Your task to perform on an android device: Show the shopping cart on costco. Add "usb-c to usb-b" to the cart on costco Image 0: 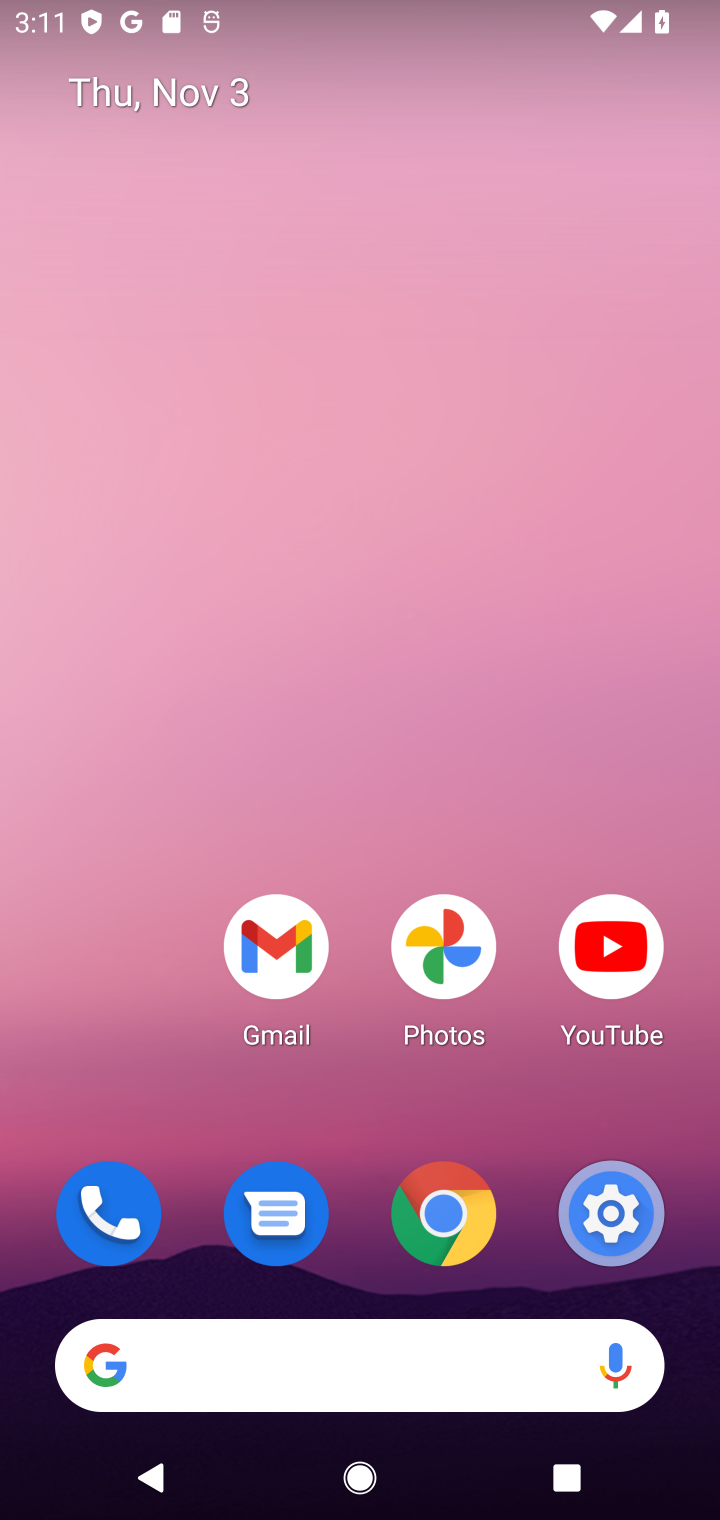
Step 0: click (445, 1245)
Your task to perform on an android device: Show the shopping cart on costco. Add "usb-c to usb-b" to the cart on costco Image 1: 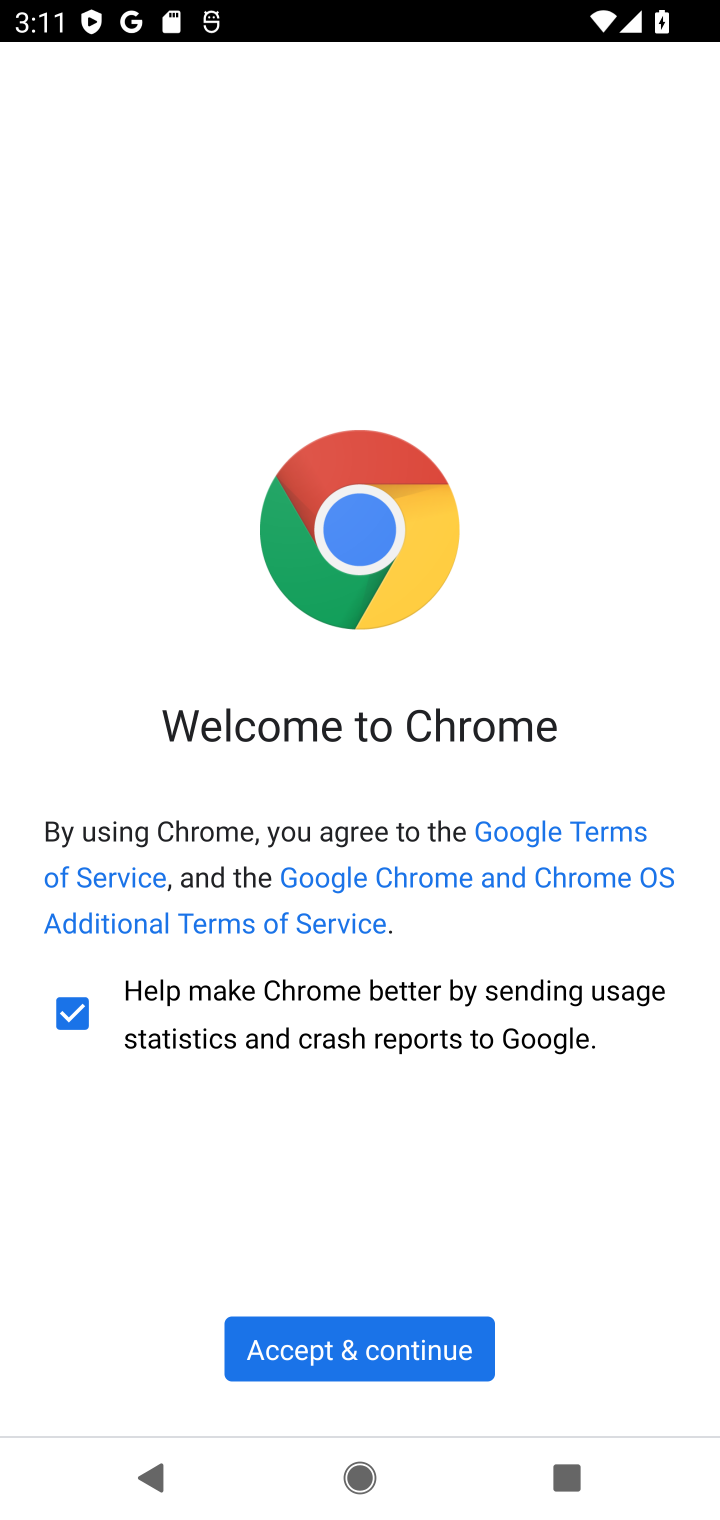
Step 1: click (296, 1343)
Your task to perform on an android device: Show the shopping cart on costco. Add "usb-c to usb-b" to the cart on costco Image 2: 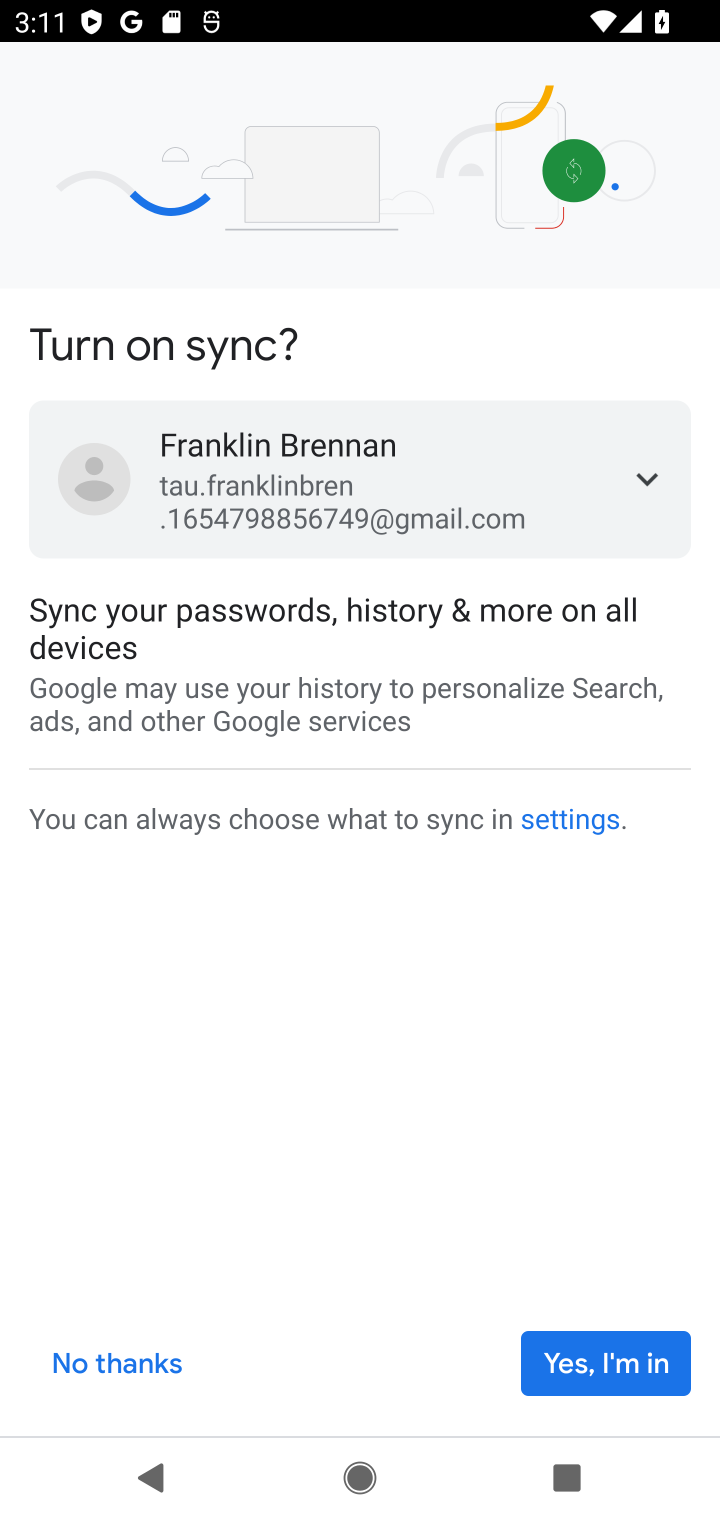
Step 2: click (67, 1362)
Your task to perform on an android device: Show the shopping cart on costco. Add "usb-c to usb-b" to the cart on costco Image 3: 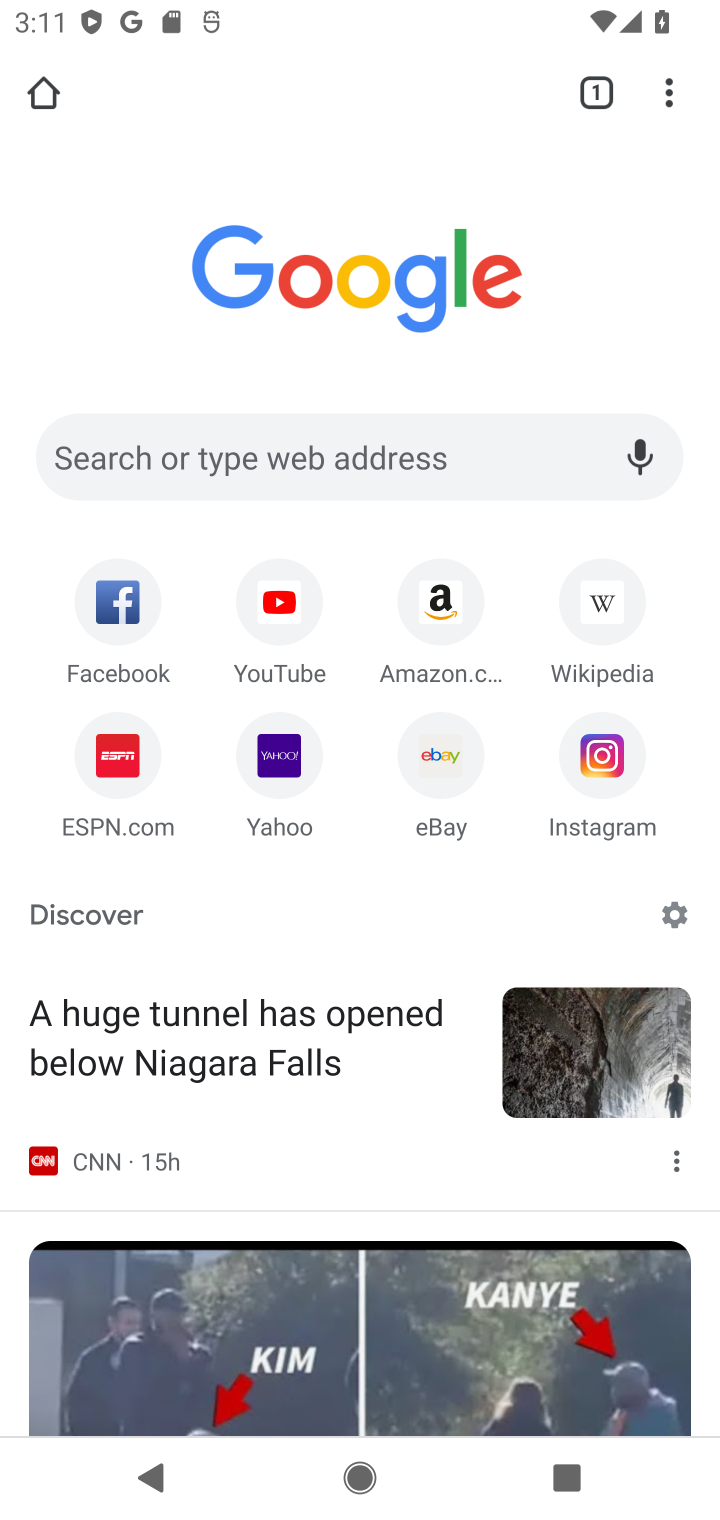
Step 3: click (179, 454)
Your task to perform on an android device: Show the shopping cart on costco. Add "usb-c to usb-b" to the cart on costco Image 4: 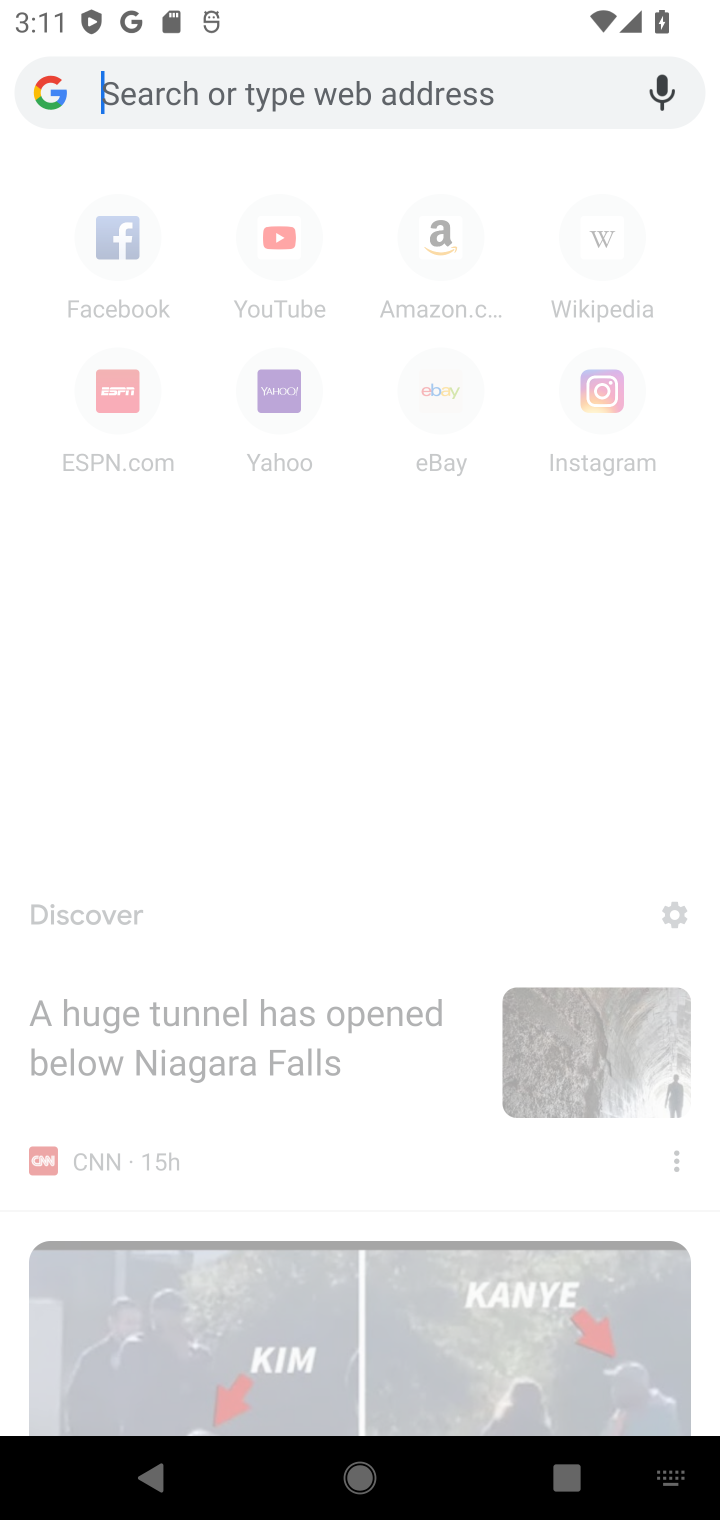
Step 4: type "costco.com"
Your task to perform on an android device: Show the shopping cart on costco. Add "usb-c to usb-b" to the cart on costco Image 5: 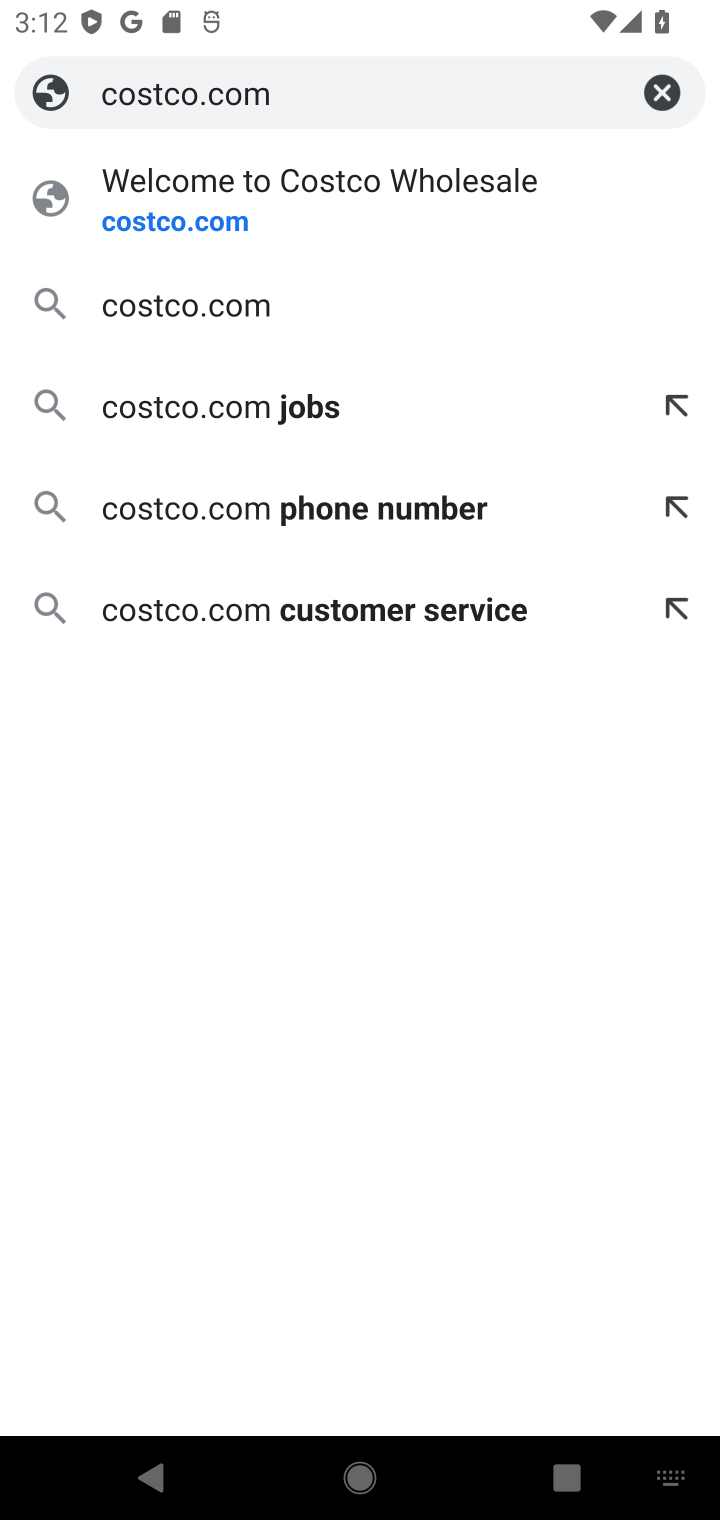
Step 5: click (163, 236)
Your task to perform on an android device: Show the shopping cart on costco. Add "usb-c to usb-b" to the cart on costco Image 6: 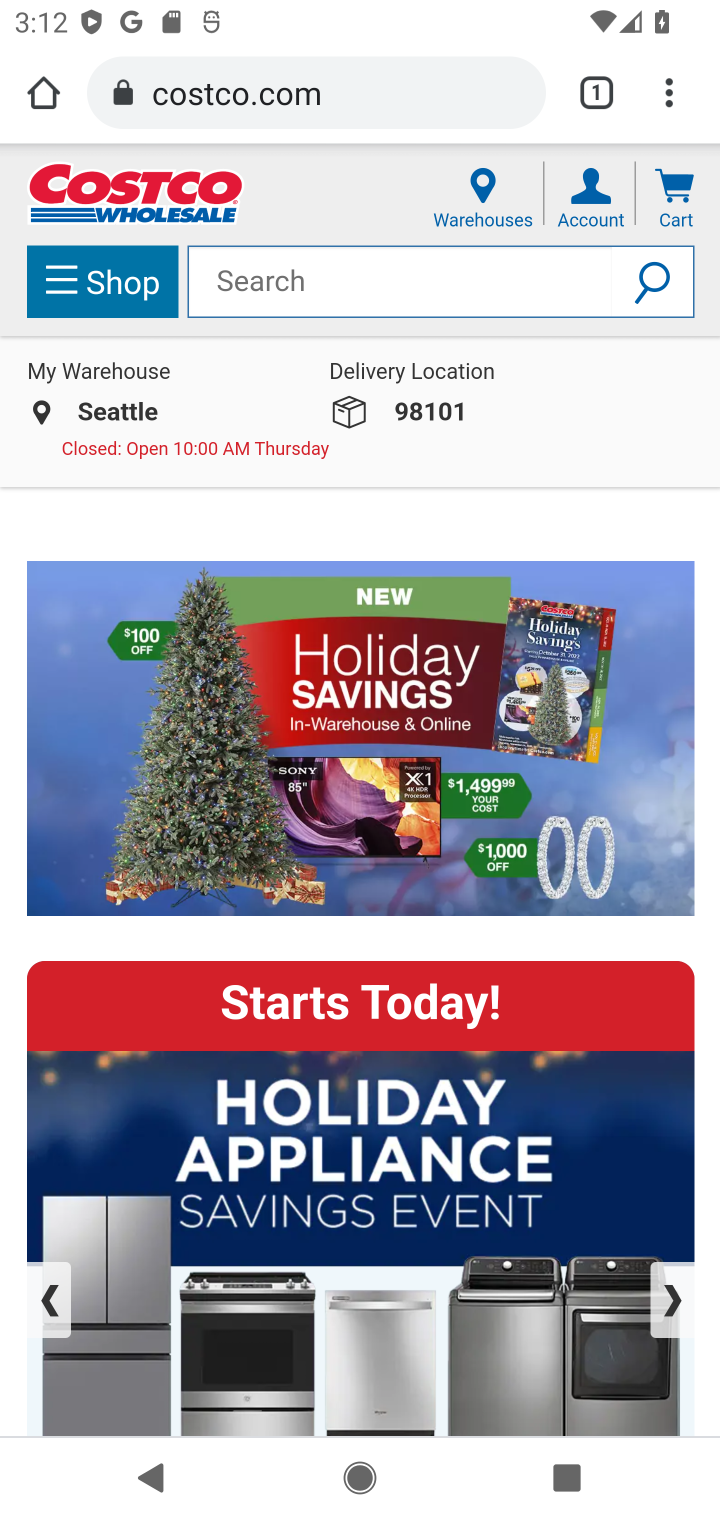
Step 6: click (306, 286)
Your task to perform on an android device: Show the shopping cart on costco. Add "usb-c to usb-b" to the cart on costco Image 7: 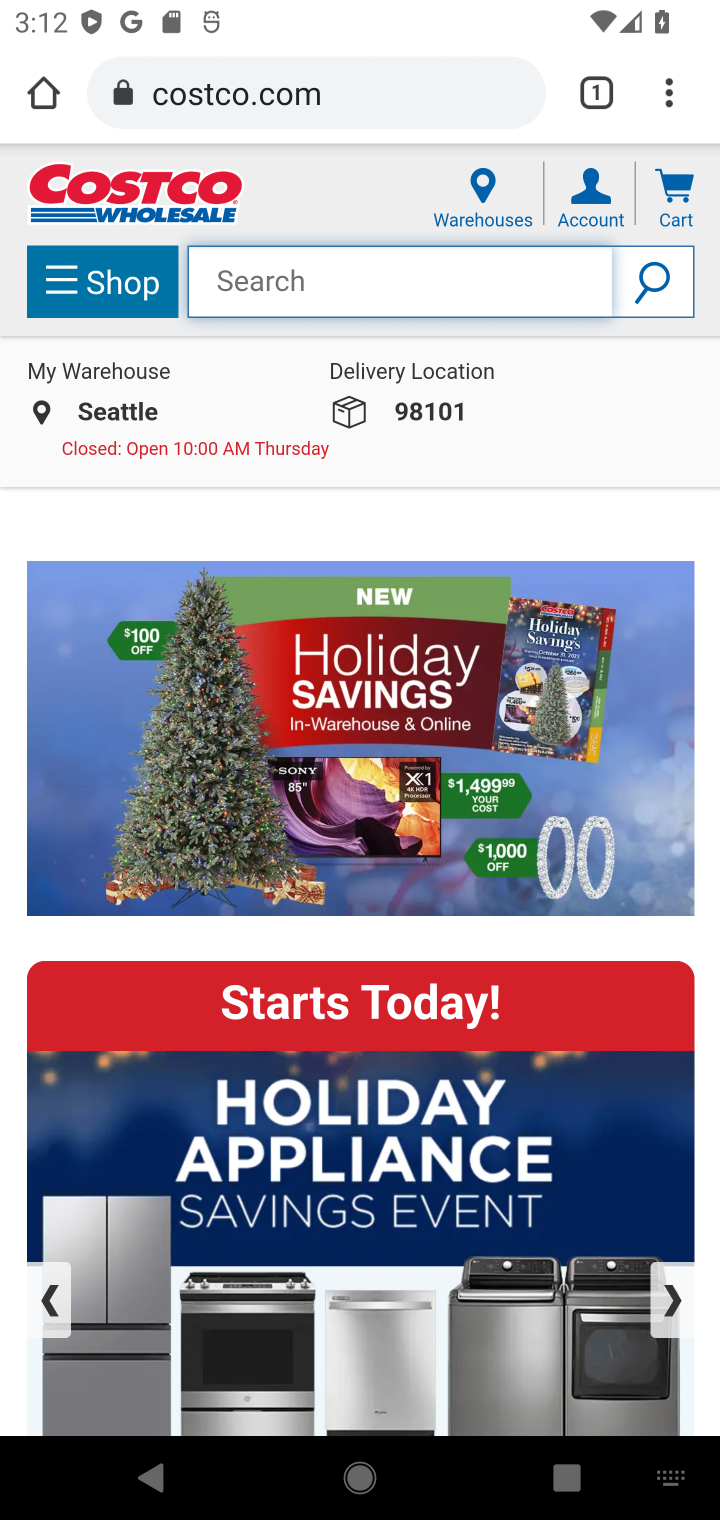
Step 7: type "usb-c to usb-b"
Your task to perform on an android device: Show the shopping cart on costco. Add "usb-c to usb-b" to the cart on costco Image 8: 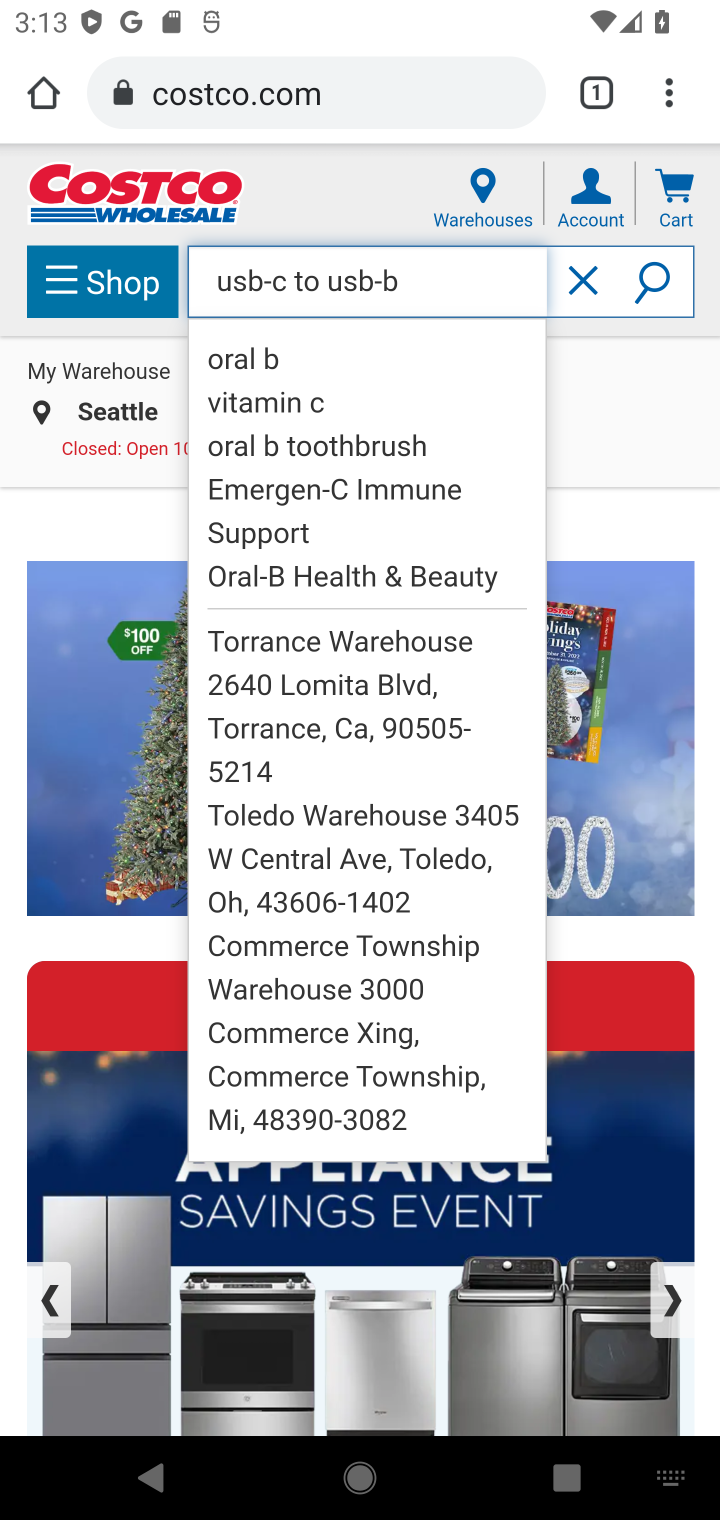
Step 8: click (645, 297)
Your task to perform on an android device: Show the shopping cart on costco. Add "usb-c to usb-b" to the cart on costco Image 9: 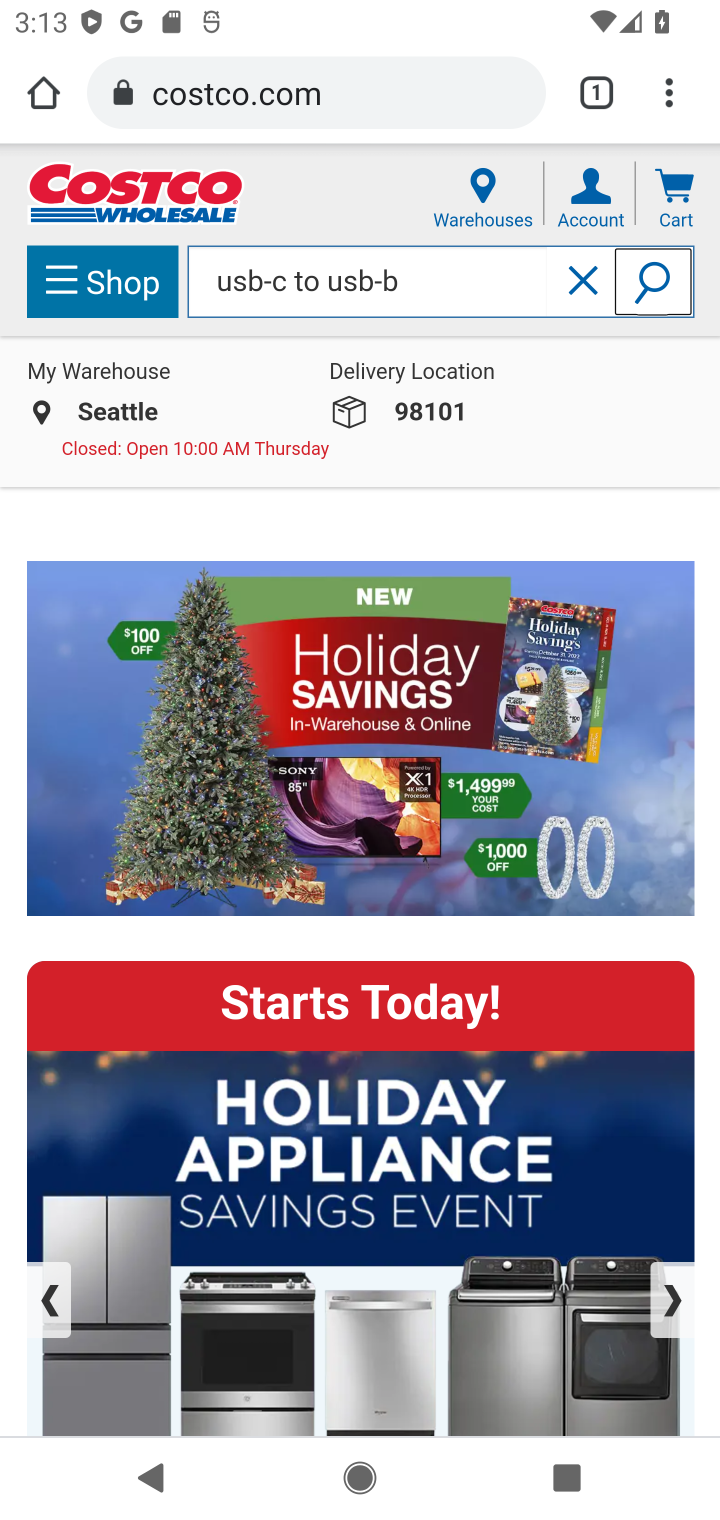
Step 9: click (647, 292)
Your task to perform on an android device: Show the shopping cart on costco. Add "usb-c to usb-b" to the cart on costco Image 10: 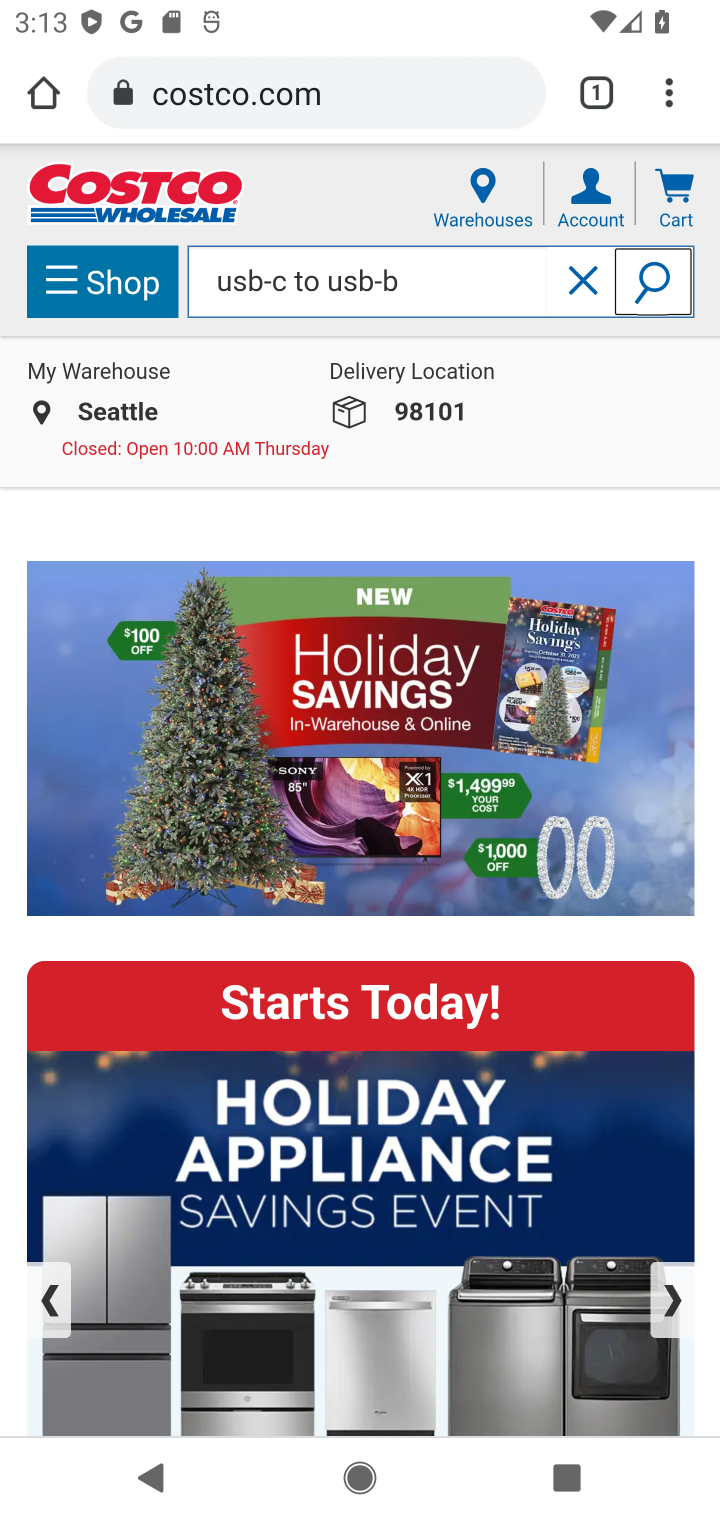
Step 10: click (647, 292)
Your task to perform on an android device: Show the shopping cart on costco. Add "usb-c to usb-b" to the cart on costco Image 11: 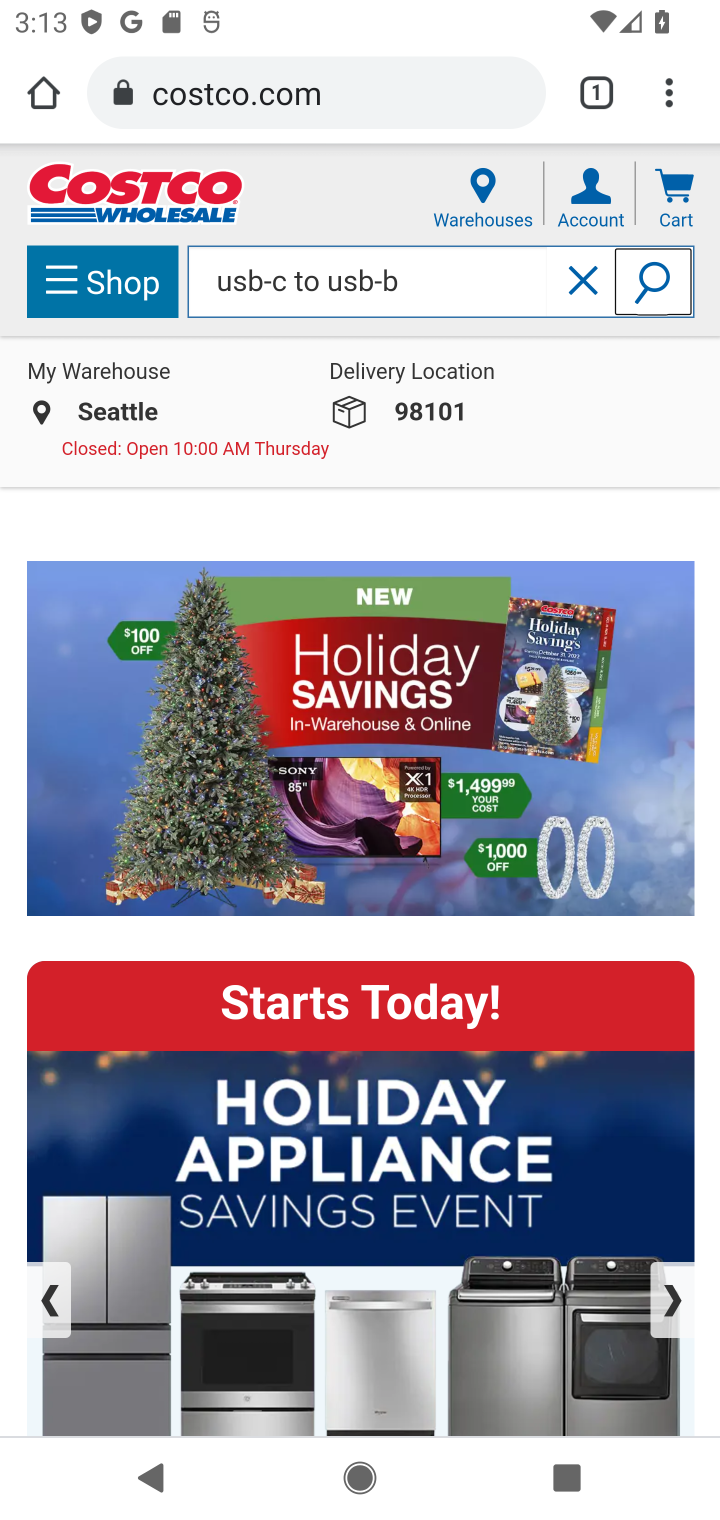
Step 11: click (656, 282)
Your task to perform on an android device: Show the shopping cart on costco. Add "usb-c to usb-b" to the cart on costco Image 12: 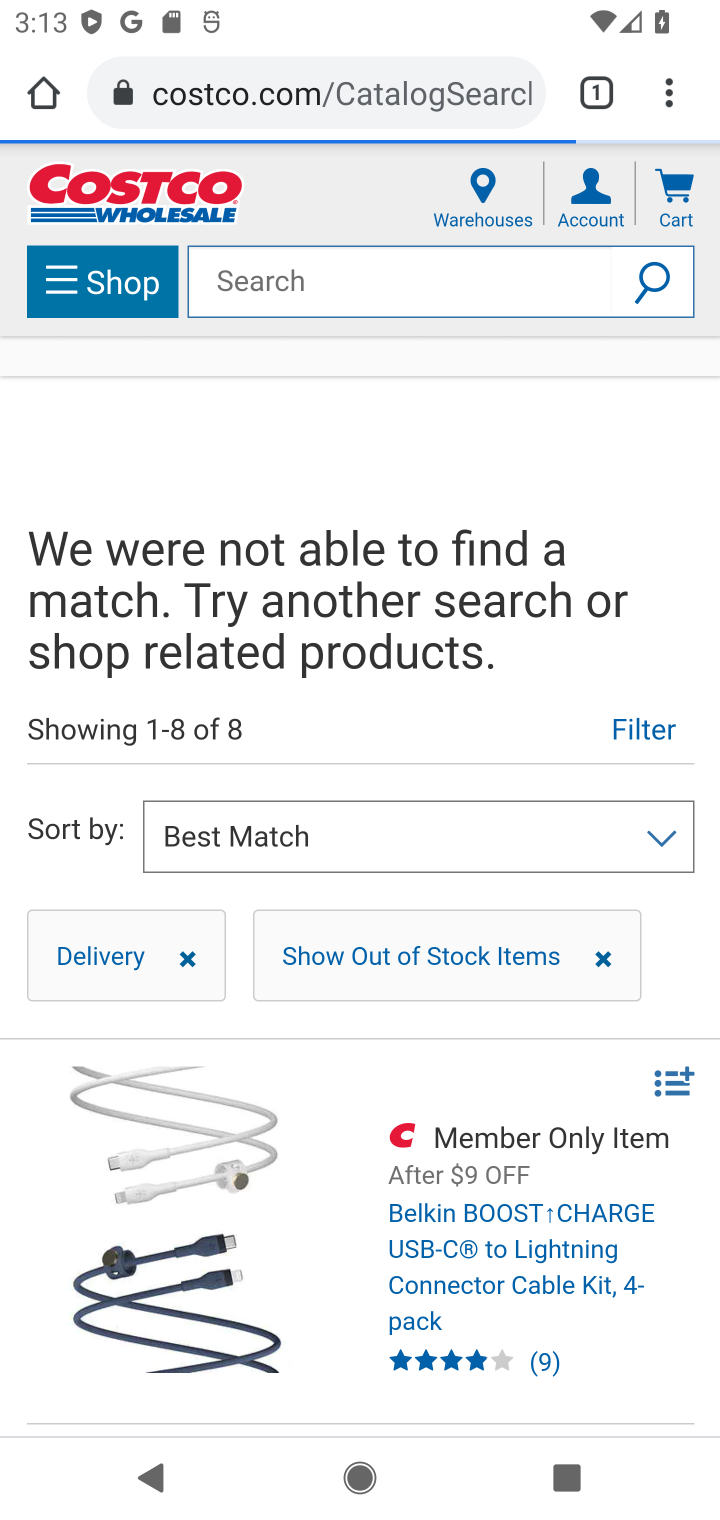
Step 12: task complete